Your task to perform on an android device: Go to eBay Image 0: 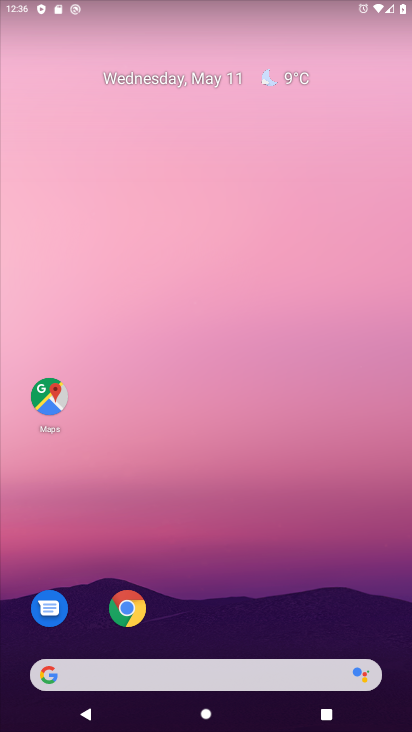
Step 0: drag from (153, 573) to (126, 152)
Your task to perform on an android device: Go to eBay Image 1: 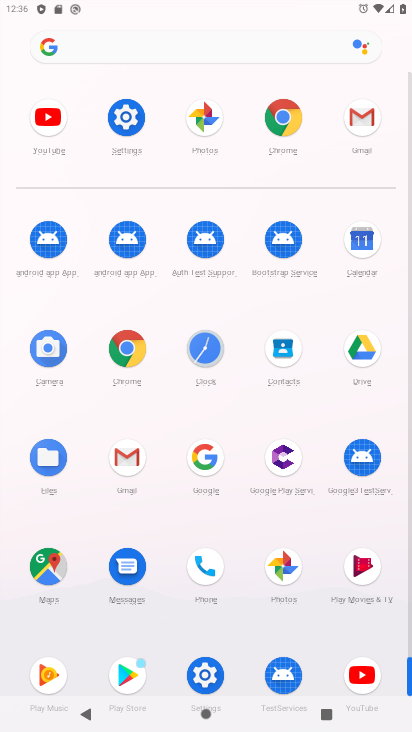
Step 1: click (140, 343)
Your task to perform on an android device: Go to eBay Image 2: 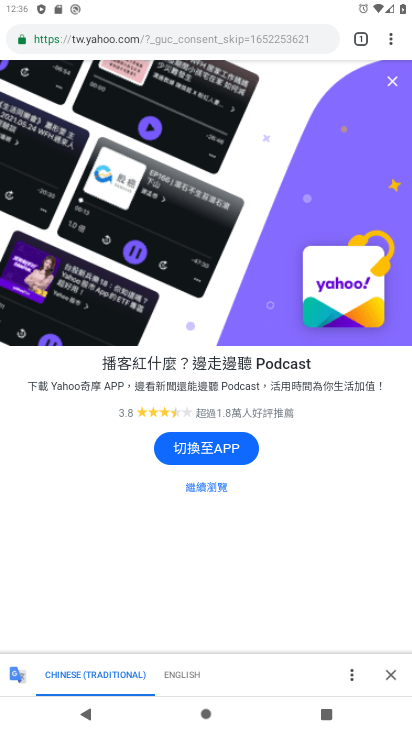
Step 2: click (227, 42)
Your task to perform on an android device: Go to eBay Image 3: 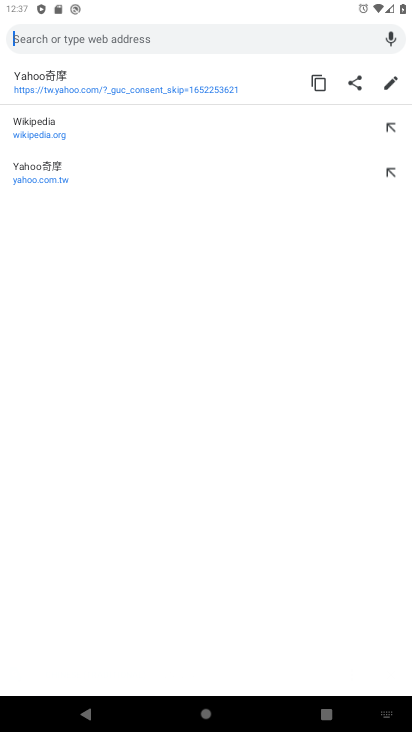
Step 3: type "ebay"
Your task to perform on an android device: Go to eBay Image 4: 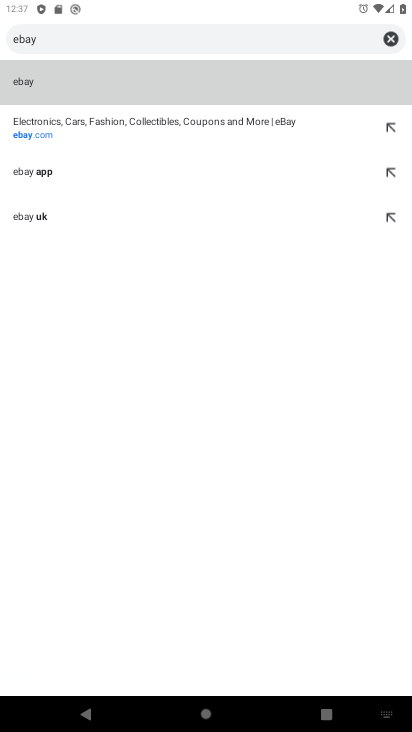
Step 4: click (172, 128)
Your task to perform on an android device: Go to eBay Image 5: 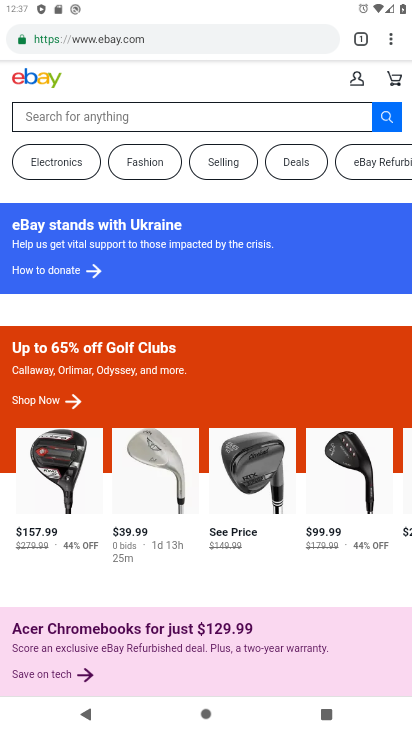
Step 5: task complete